Your task to perform on an android device: turn on notifications settings in the gmail app Image 0: 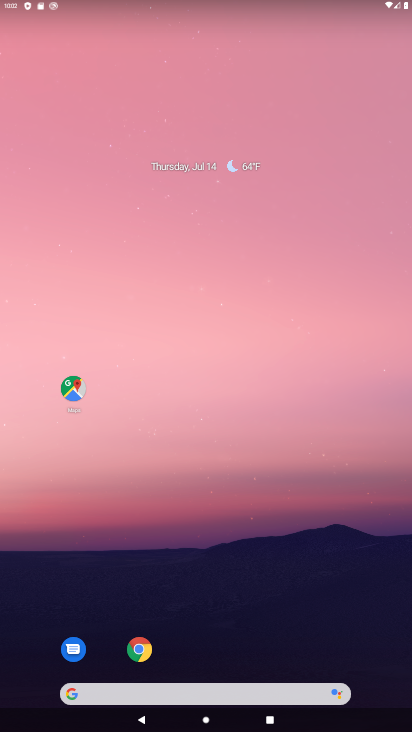
Step 0: drag from (243, 636) to (254, 254)
Your task to perform on an android device: turn on notifications settings in the gmail app Image 1: 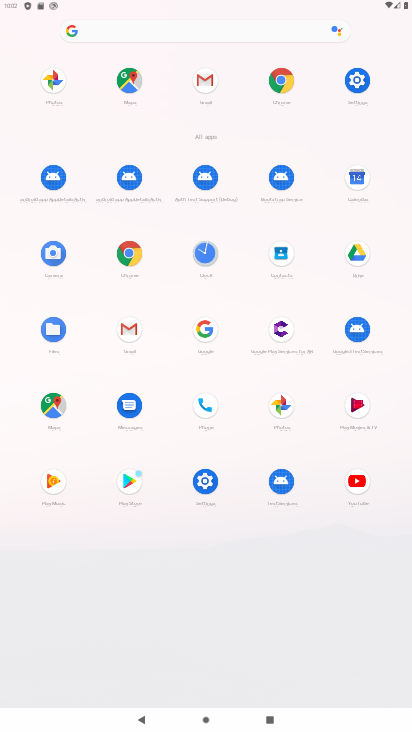
Step 1: click (123, 326)
Your task to perform on an android device: turn on notifications settings in the gmail app Image 2: 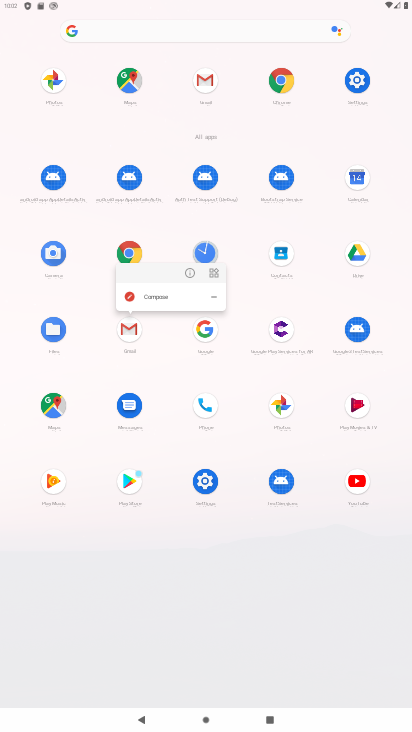
Step 2: click (191, 266)
Your task to perform on an android device: turn on notifications settings in the gmail app Image 3: 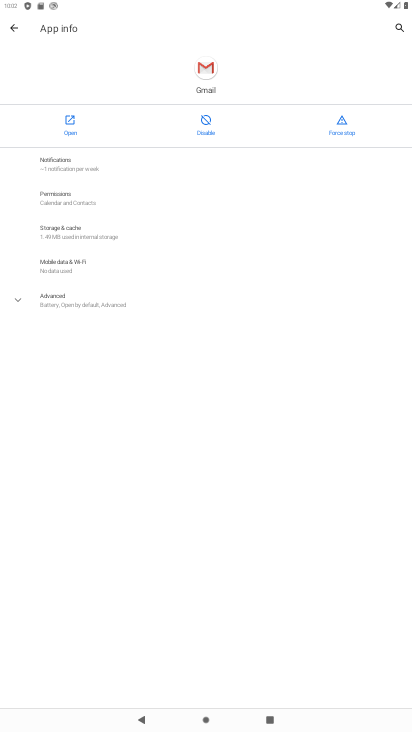
Step 3: click (60, 167)
Your task to perform on an android device: turn on notifications settings in the gmail app Image 4: 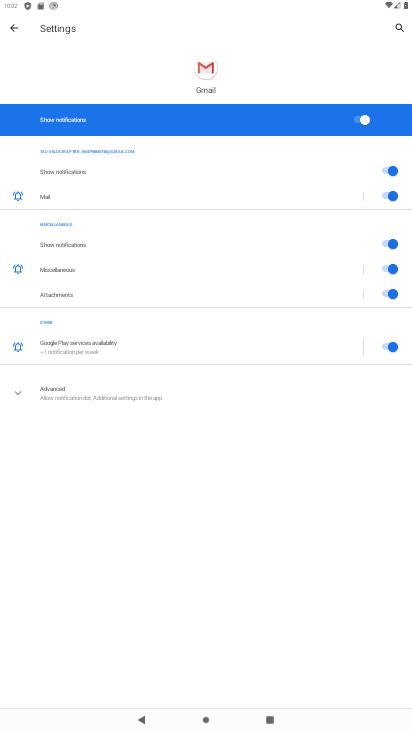
Step 4: task complete